Your task to perform on an android device: Open internet settings Image 0: 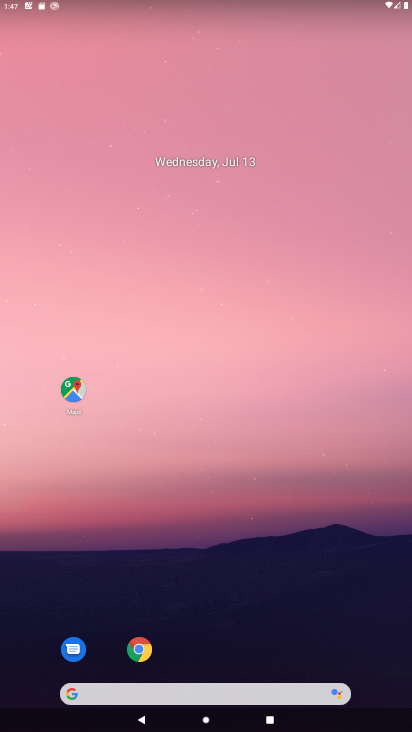
Step 0: press home button
Your task to perform on an android device: Open internet settings Image 1: 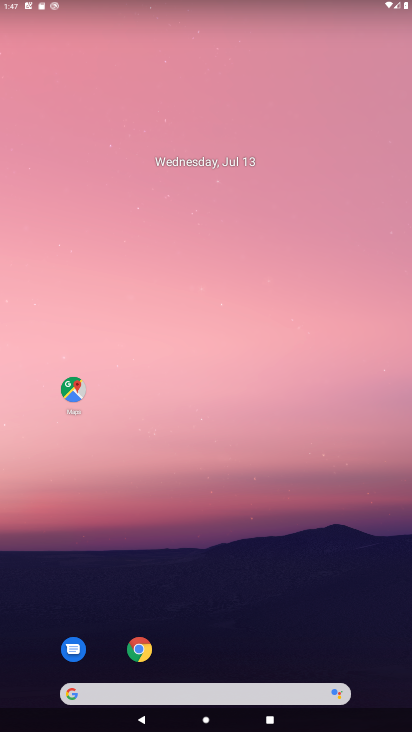
Step 1: drag from (336, 481) to (92, 11)
Your task to perform on an android device: Open internet settings Image 2: 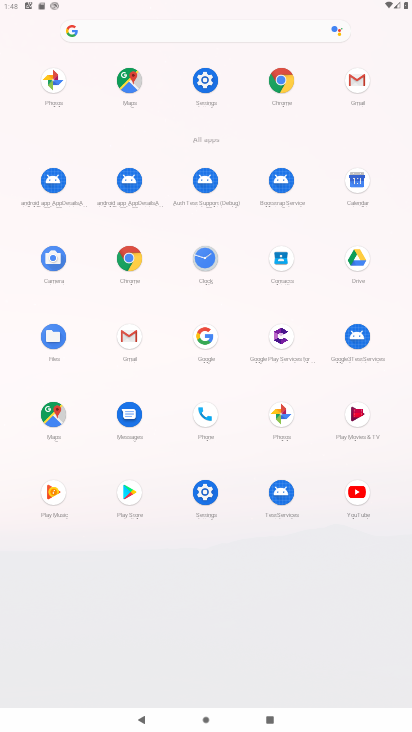
Step 2: drag from (186, 301) to (186, 11)
Your task to perform on an android device: Open internet settings Image 3: 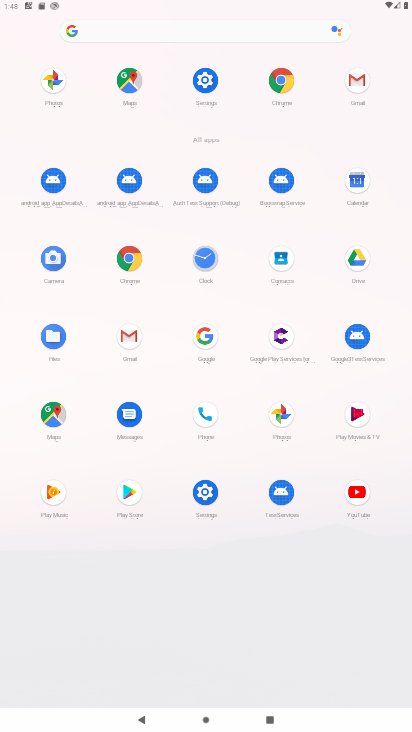
Step 3: click (209, 79)
Your task to perform on an android device: Open internet settings Image 4: 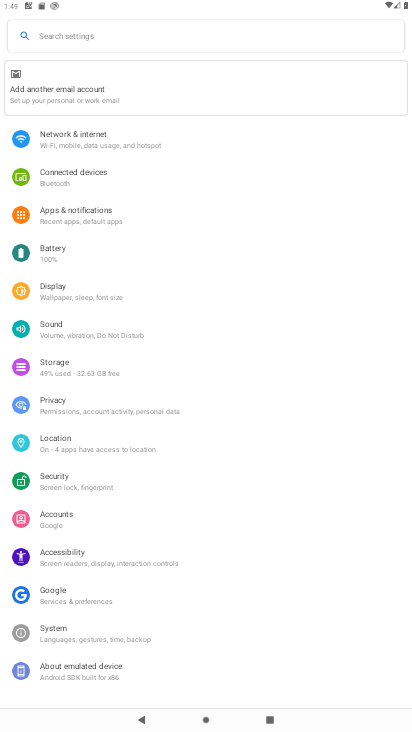
Step 4: click (111, 140)
Your task to perform on an android device: Open internet settings Image 5: 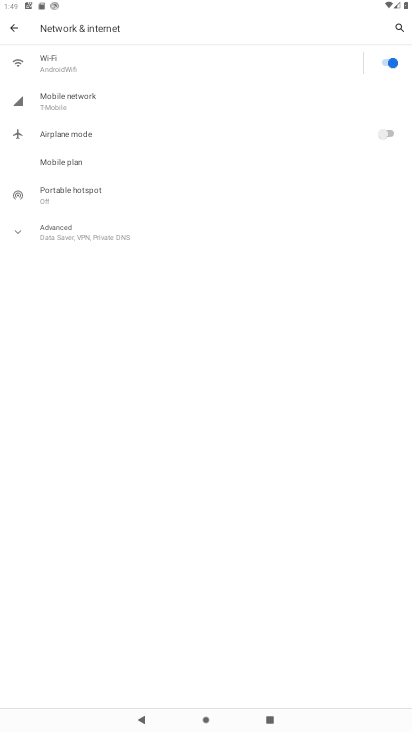
Step 5: task complete